Your task to perform on an android device: Go to wifi settings Image 0: 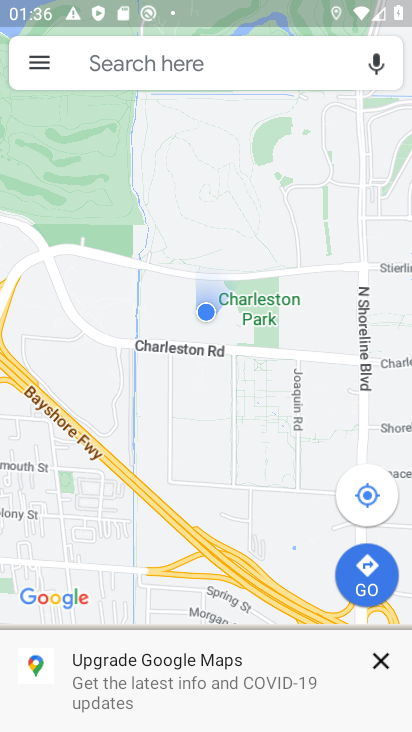
Step 0: press home button
Your task to perform on an android device: Go to wifi settings Image 1: 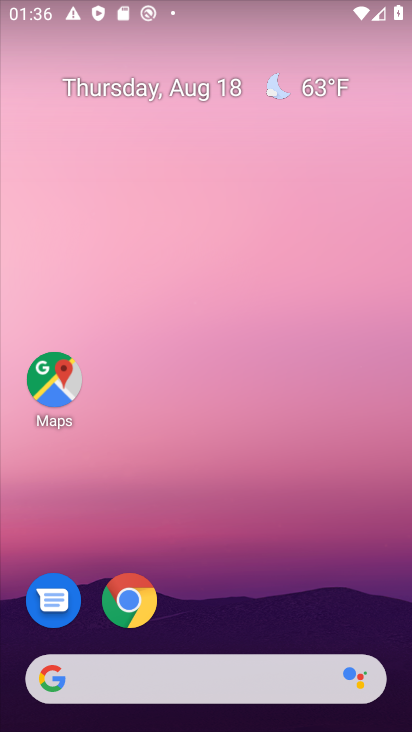
Step 1: drag from (236, 612) to (168, 149)
Your task to perform on an android device: Go to wifi settings Image 2: 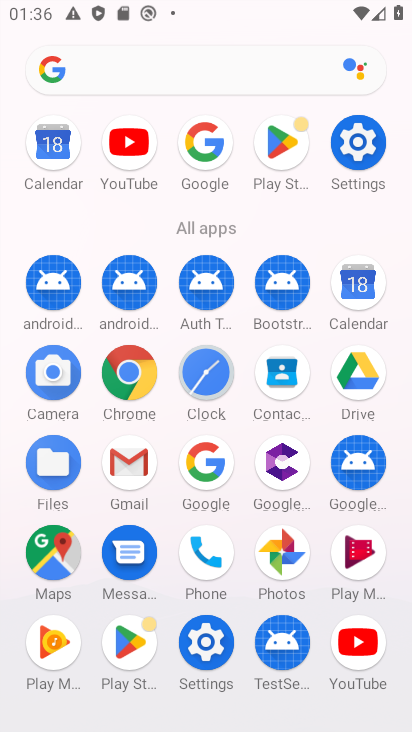
Step 2: click (358, 144)
Your task to perform on an android device: Go to wifi settings Image 3: 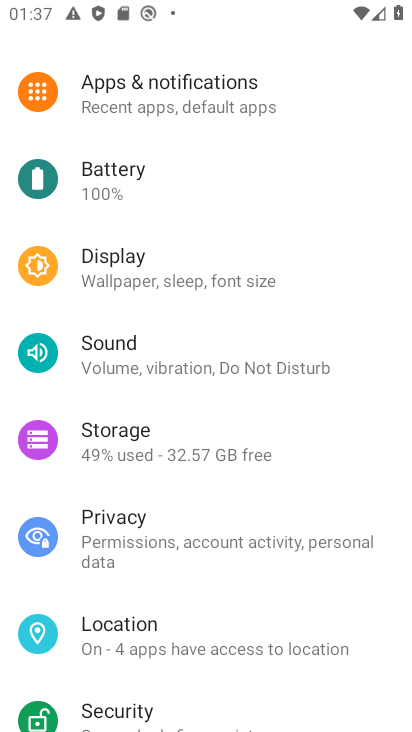
Step 3: drag from (191, 140) to (295, 679)
Your task to perform on an android device: Go to wifi settings Image 4: 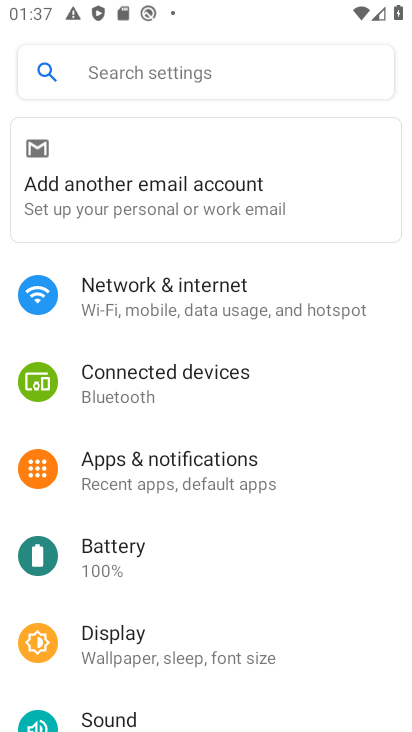
Step 4: click (149, 278)
Your task to perform on an android device: Go to wifi settings Image 5: 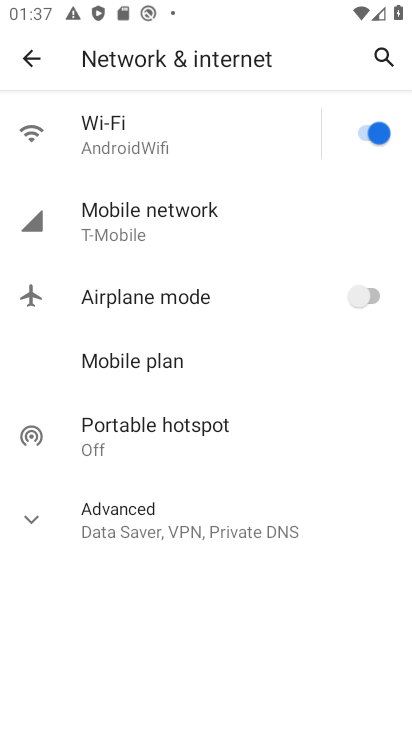
Step 5: click (98, 137)
Your task to perform on an android device: Go to wifi settings Image 6: 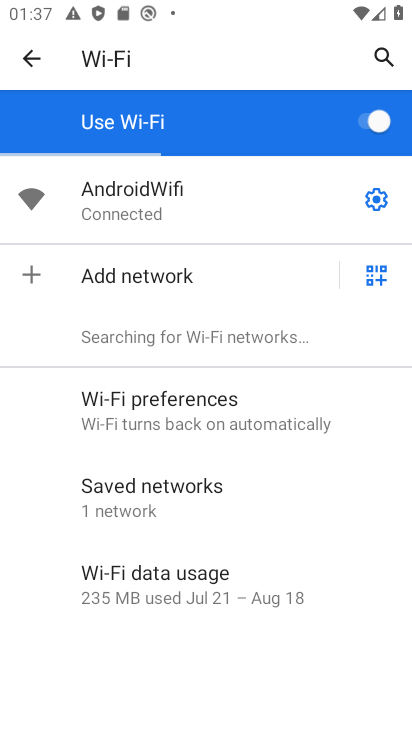
Step 6: task complete